Your task to perform on an android device: all mails in gmail Image 0: 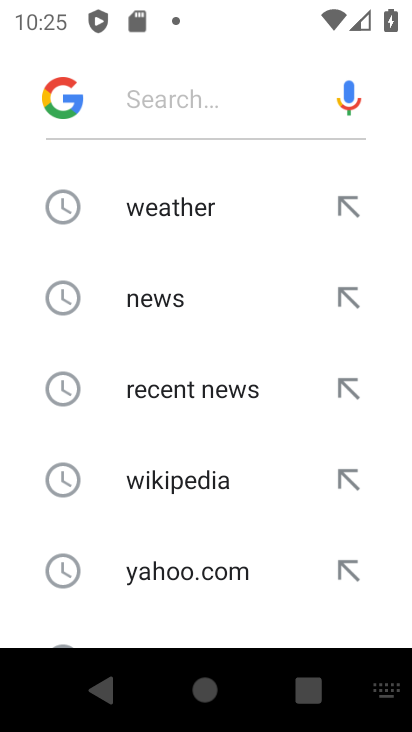
Step 0: press back button
Your task to perform on an android device: all mails in gmail Image 1: 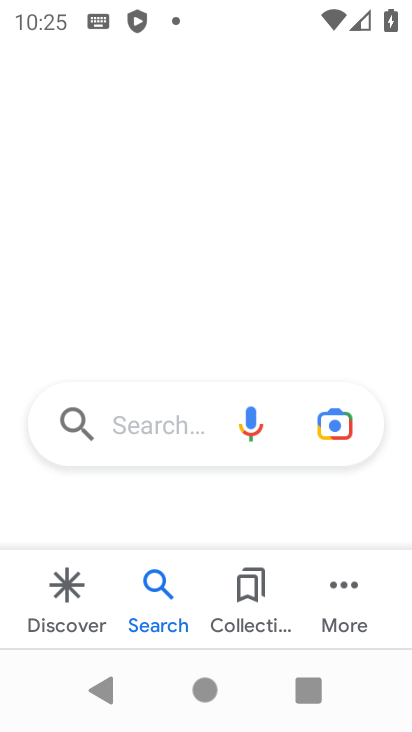
Step 1: press back button
Your task to perform on an android device: all mails in gmail Image 2: 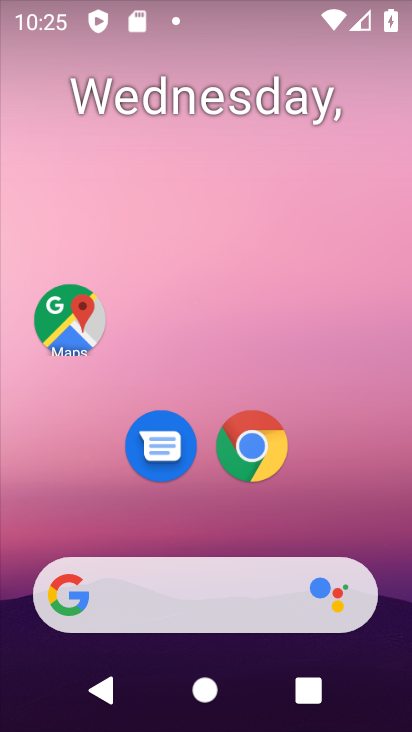
Step 2: drag from (80, 540) to (165, 147)
Your task to perform on an android device: all mails in gmail Image 3: 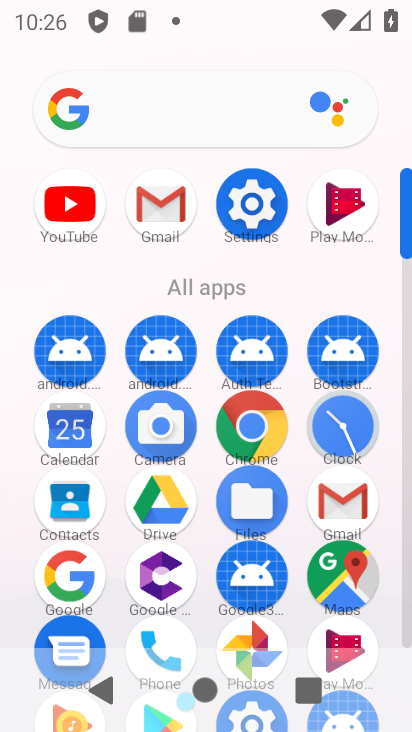
Step 3: click (354, 486)
Your task to perform on an android device: all mails in gmail Image 4: 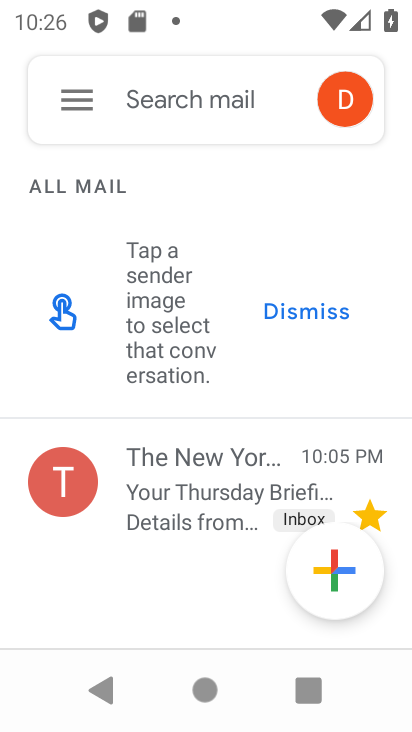
Step 4: click (98, 107)
Your task to perform on an android device: all mails in gmail Image 5: 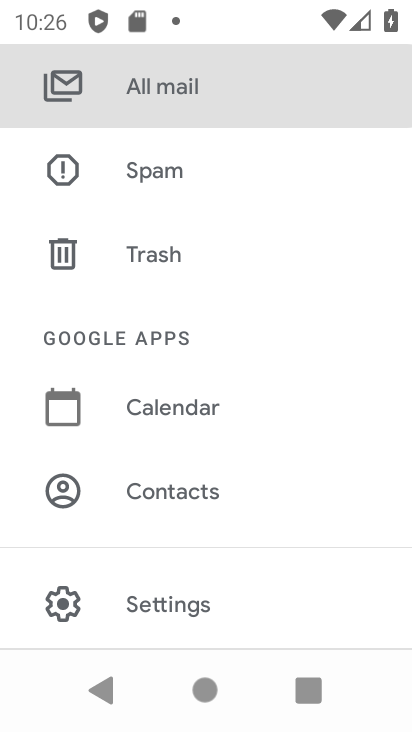
Step 5: drag from (141, 592) to (172, 626)
Your task to perform on an android device: all mails in gmail Image 6: 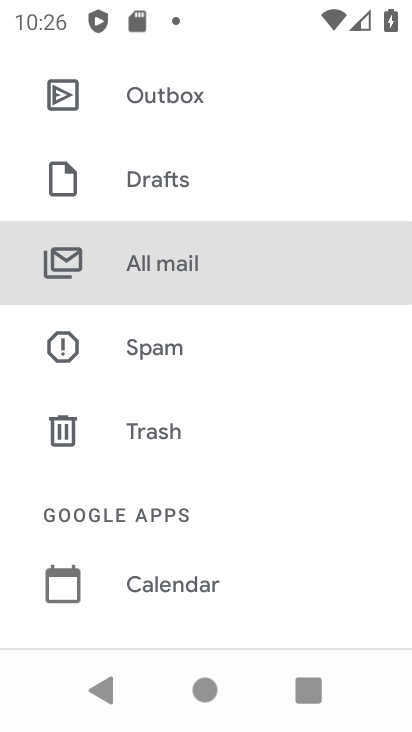
Step 6: click (205, 269)
Your task to perform on an android device: all mails in gmail Image 7: 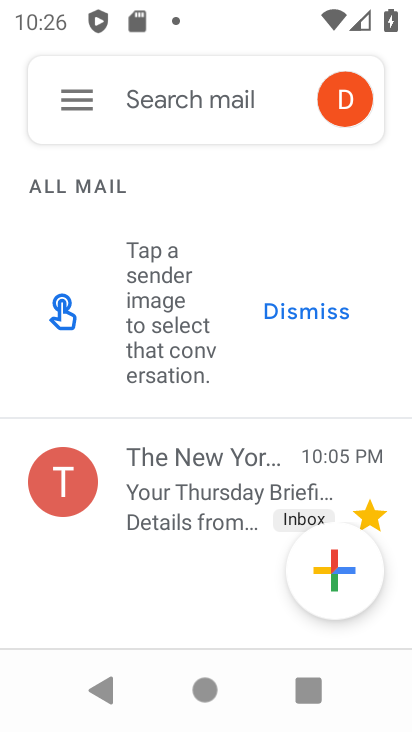
Step 7: task complete